Your task to perform on an android device: delete the emails in spam in the gmail app Image 0: 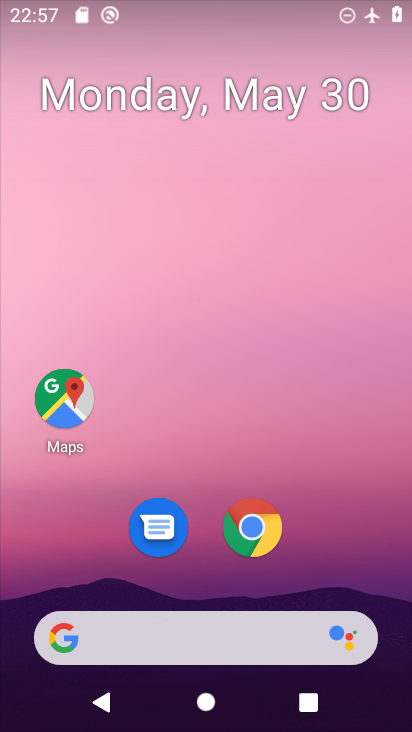
Step 0: drag from (293, 574) to (288, 223)
Your task to perform on an android device: delete the emails in spam in the gmail app Image 1: 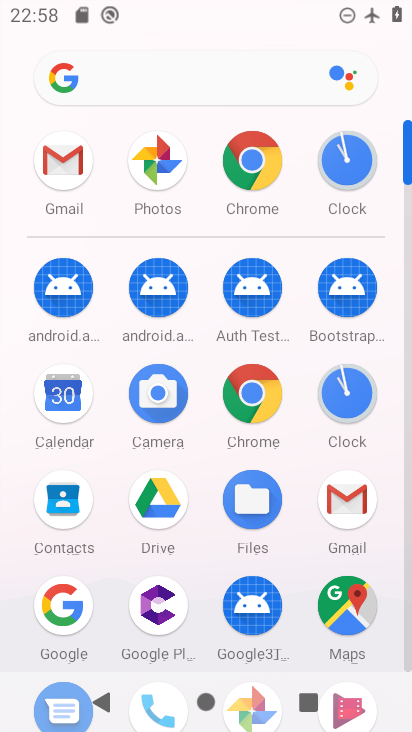
Step 1: click (52, 158)
Your task to perform on an android device: delete the emails in spam in the gmail app Image 2: 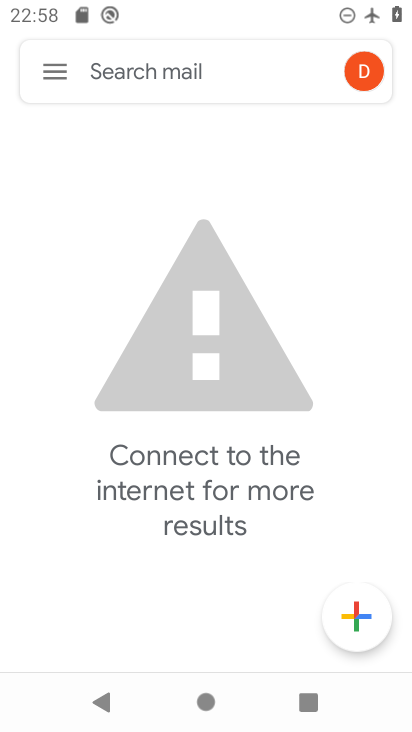
Step 2: click (44, 61)
Your task to perform on an android device: delete the emails in spam in the gmail app Image 3: 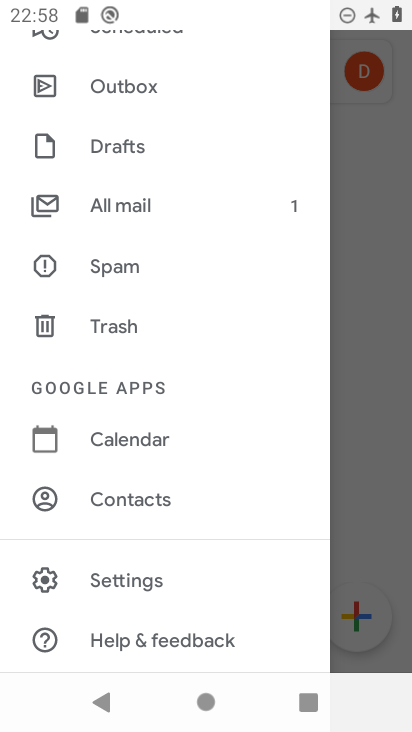
Step 3: click (107, 265)
Your task to perform on an android device: delete the emails in spam in the gmail app Image 4: 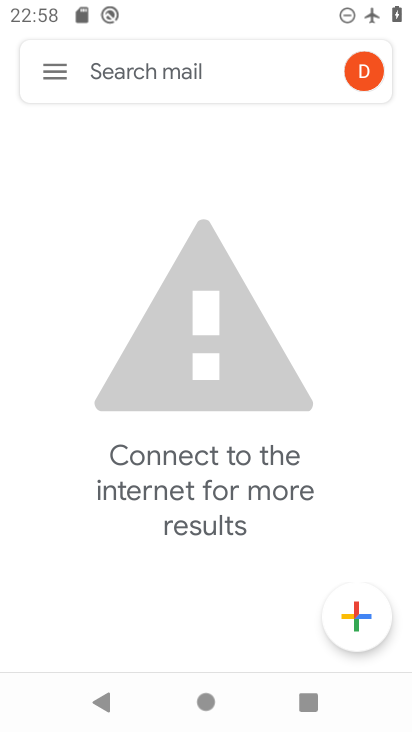
Step 4: task complete